Your task to perform on an android device: stop showing notifications on the lock screen Image 0: 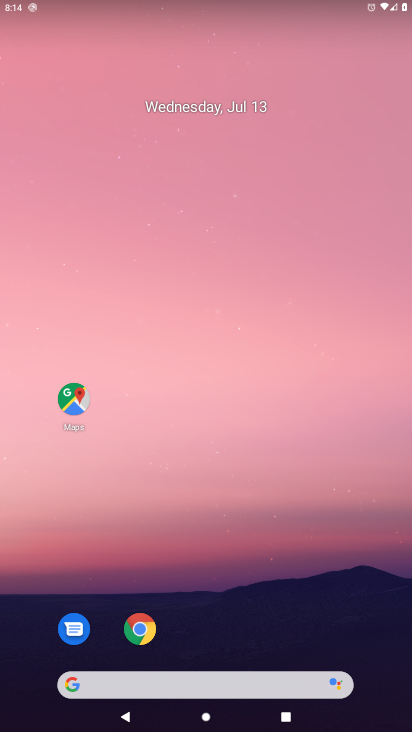
Step 0: drag from (19, 696) to (142, 110)
Your task to perform on an android device: stop showing notifications on the lock screen Image 1: 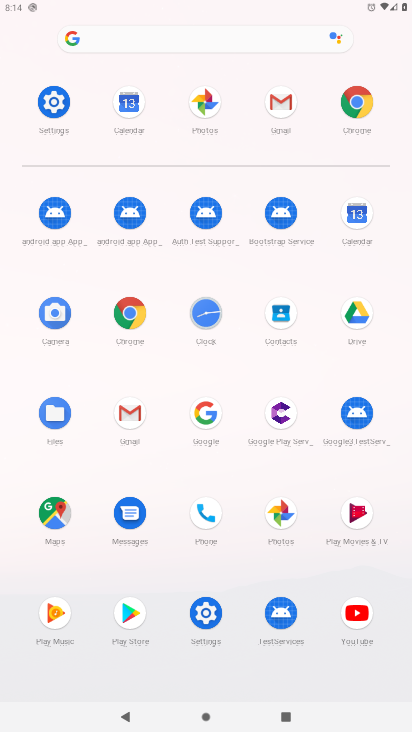
Step 1: click (204, 609)
Your task to perform on an android device: stop showing notifications on the lock screen Image 2: 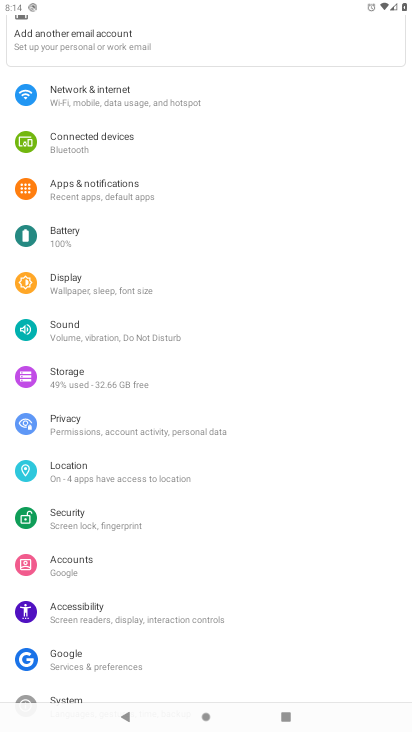
Step 2: click (100, 191)
Your task to perform on an android device: stop showing notifications on the lock screen Image 3: 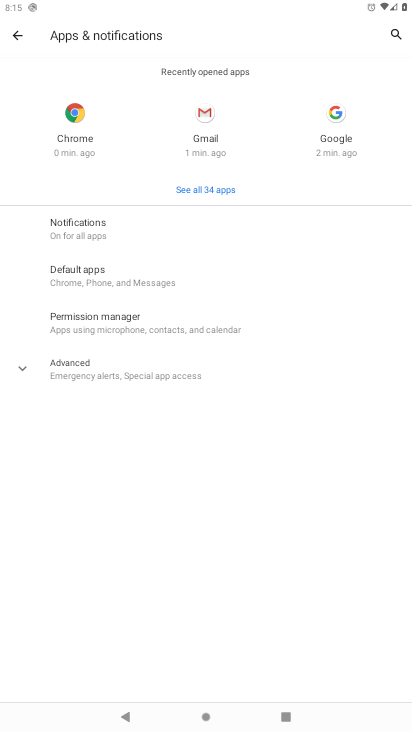
Step 3: click (103, 238)
Your task to perform on an android device: stop showing notifications on the lock screen Image 4: 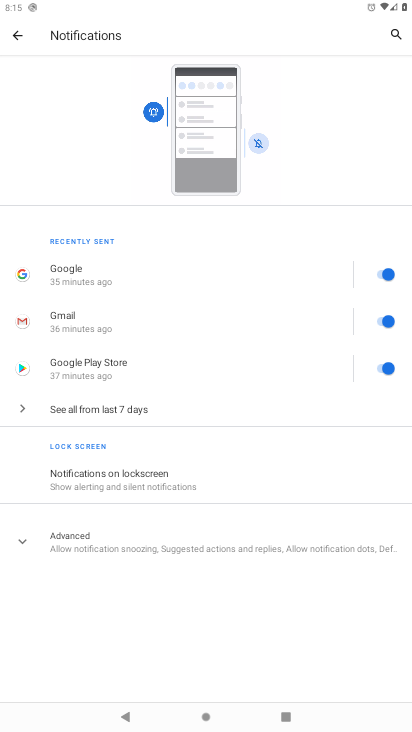
Step 4: click (91, 479)
Your task to perform on an android device: stop showing notifications on the lock screen Image 5: 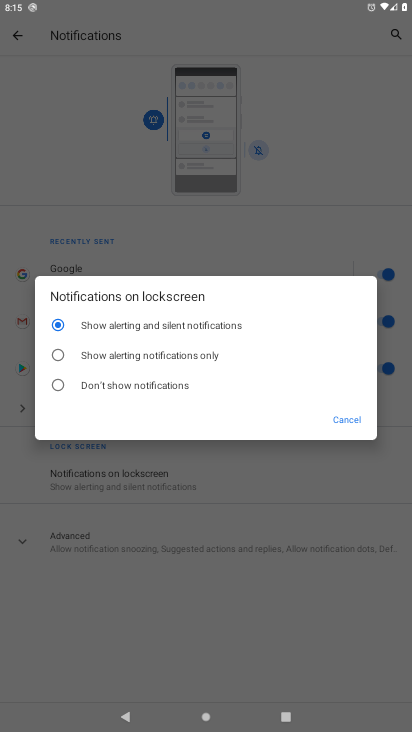
Step 5: click (90, 385)
Your task to perform on an android device: stop showing notifications on the lock screen Image 6: 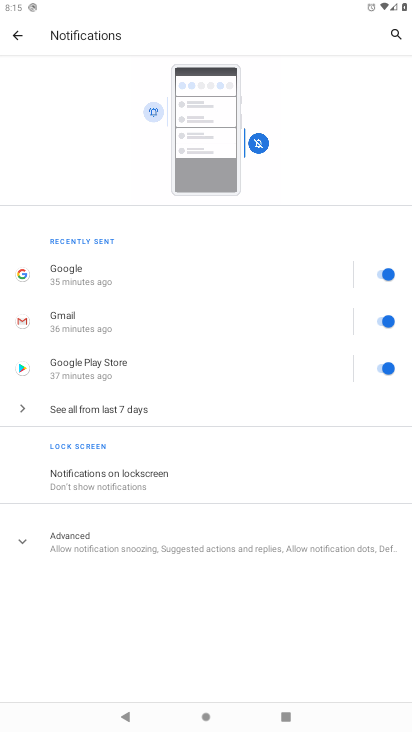
Step 6: task complete